Your task to perform on an android device: toggle javascript in the chrome app Image 0: 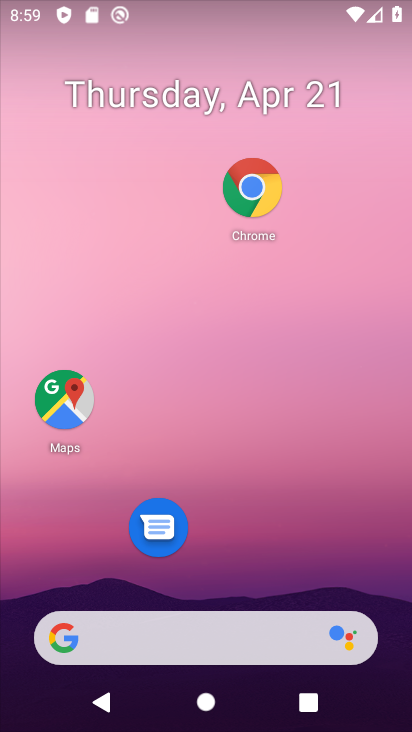
Step 0: click (244, 200)
Your task to perform on an android device: toggle javascript in the chrome app Image 1: 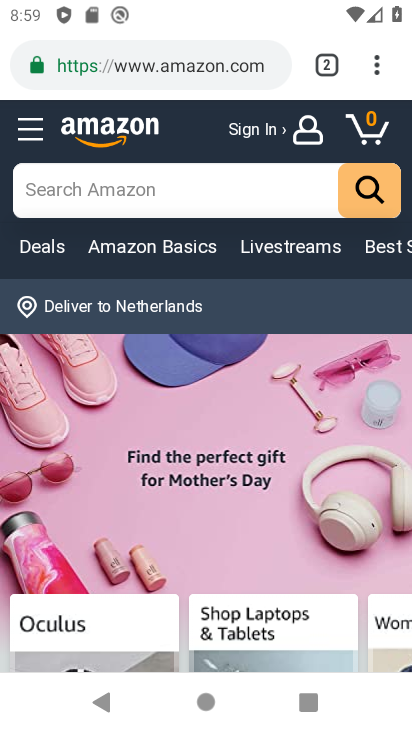
Step 1: click (387, 64)
Your task to perform on an android device: toggle javascript in the chrome app Image 2: 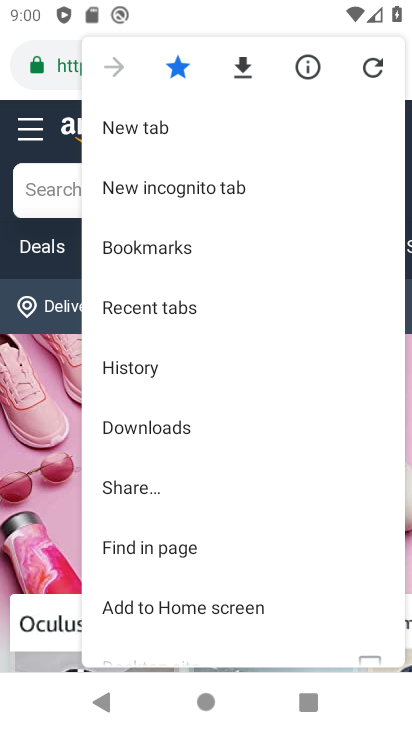
Step 2: drag from (228, 512) to (200, 182)
Your task to perform on an android device: toggle javascript in the chrome app Image 3: 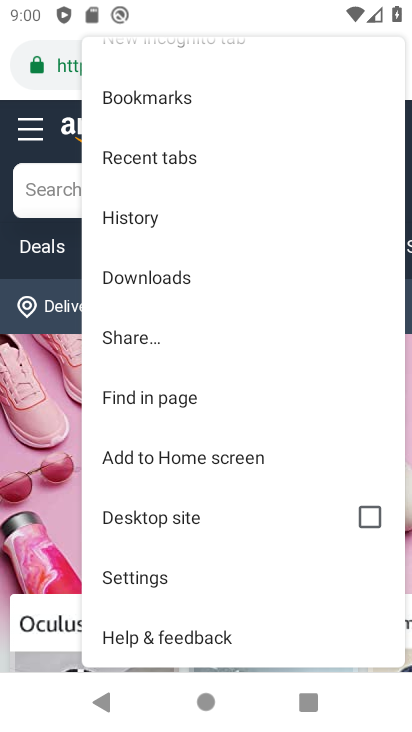
Step 3: click (160, 587)
Your task to perform on an android device: toggle javascript in the chrome app Image 4: 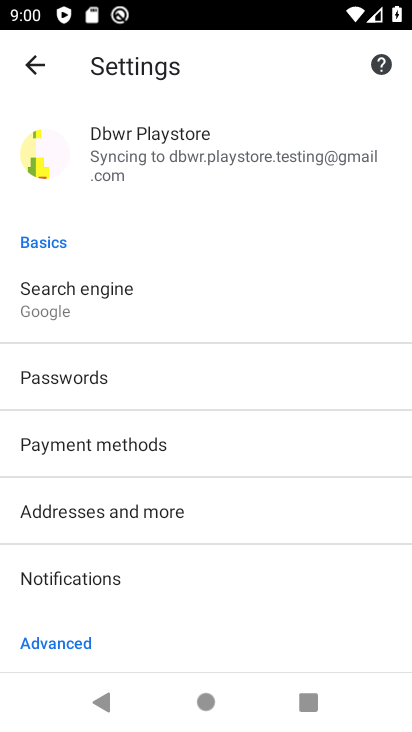
Step 4: drag from (159, 588) to (220, 360)
Your task to perform on an android device: toggle javascript in the chrome app Image 5: 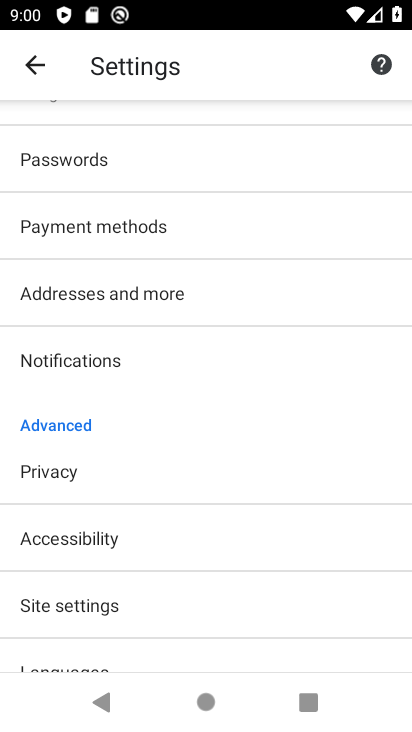
Step 5: click (102, 614)
Your task to perform on an android device: toggle javascript in the chrome app Image 6: 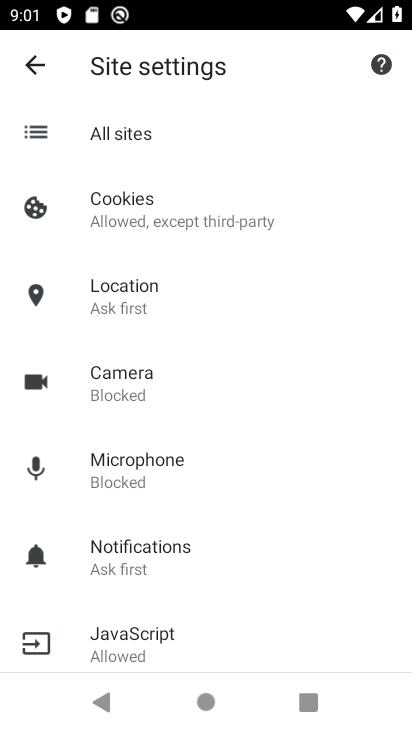
Step 6: click (136, 647)
Your task to perform on an android device: toggle javascript in the chrome app Image 7: 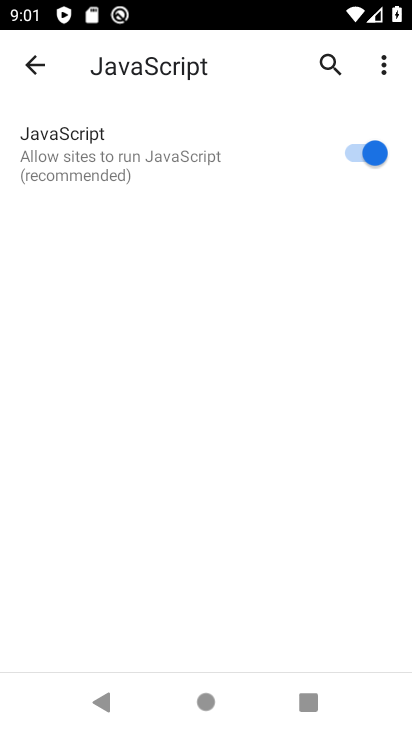
Step 7: click (349, 157)
Your task to perform on an android device: toggle javascript in the chrome app Image 8: 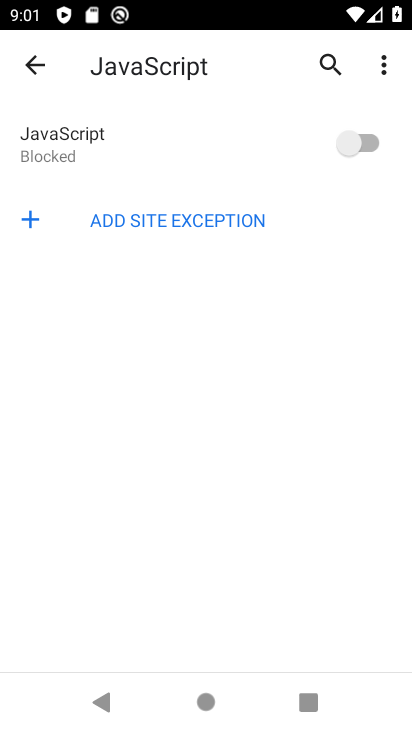
Step 8: task complete